Your task to perform on an android device: turn vacation reply on in the gmail app Image 0: 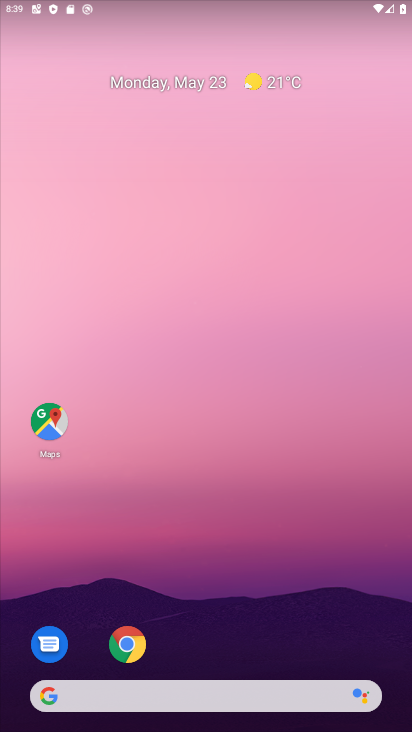
Step 0: drag from (190, 701) to (212, 17)
Your task to perform on an android device: turn vacation reply on in the gmail app Image 1: 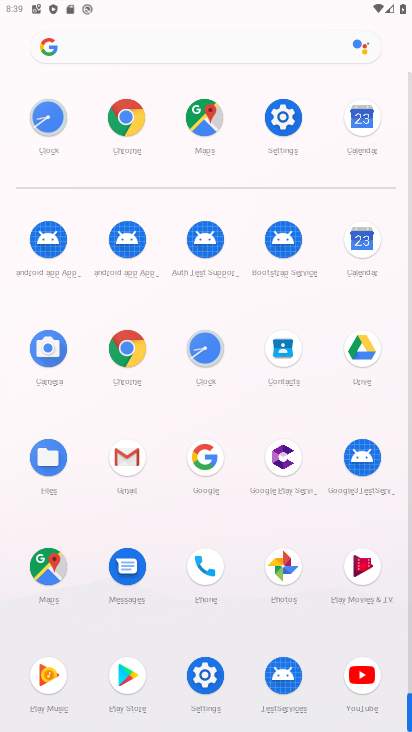
Step 1: click (141, 459)
Your task to perform on an android device: turn vacation reply on in the gmail app Image 2: 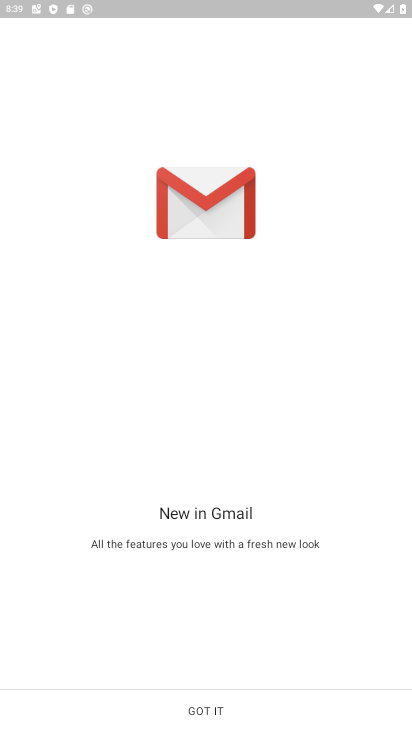
Step 2: click (217, 713)
Your task to perform on an android device: turn vacation reply on in the gmail app Image 3: 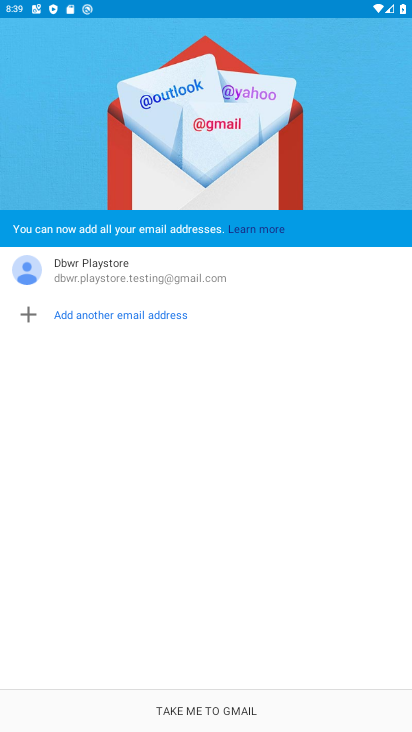
Step 3: click (217, 713)
Your task to perform on an android device: turn vacation reply on in the gmail app Image 4: 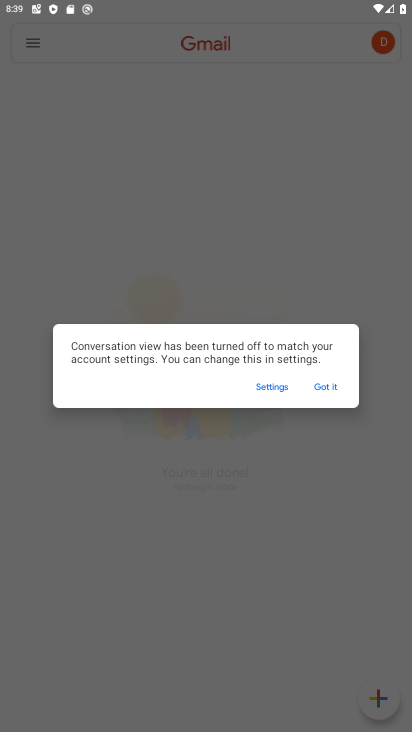
Step 4: click (320, 384)
Your task to perform on an android device: turn vacation reply on in the gmail app Image 5: 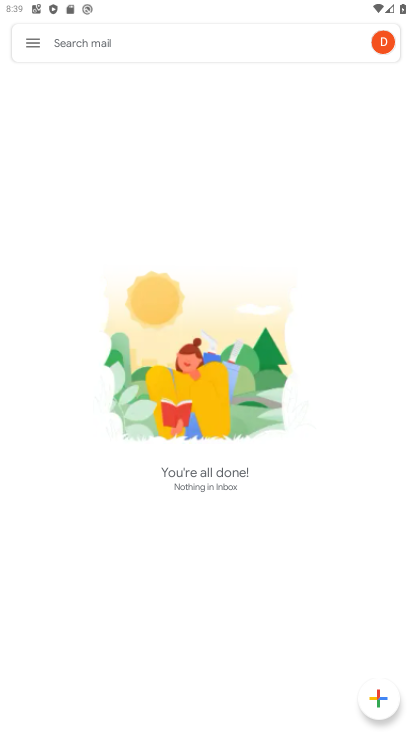
Step 5: click (25, 41)
Your task to perform on an android device: turn vacation reply on in the gmail app Image 6: 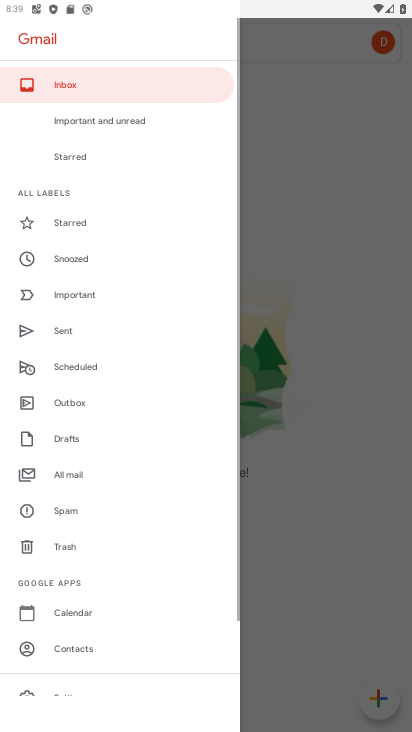
Step 6: drag from (82, 563) to (155, 68)
Your task to perform on an android device: turn vacation reply on in the gmail app Image 7: 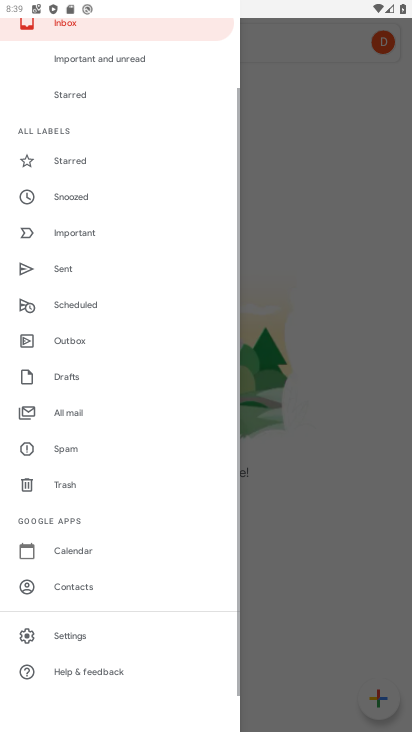
Step 7: click (75, 634)
Your task to perform on an android device: turn vacation reply on in the gmail app Image 8: 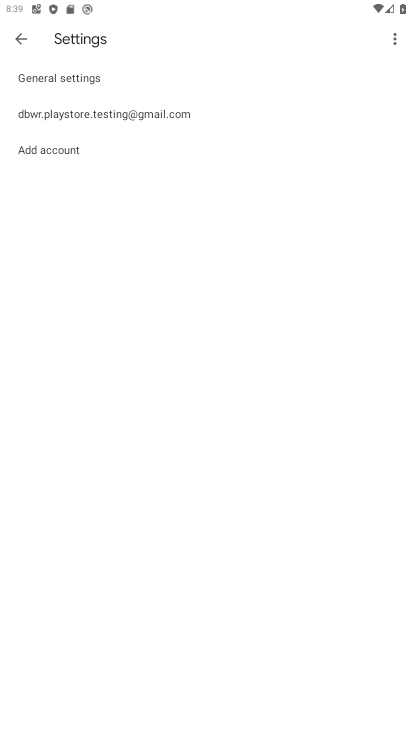
Step 8: click (127, 115)
Your task to perform on an android device: turn vacation reply on in the gmail app Image 9: 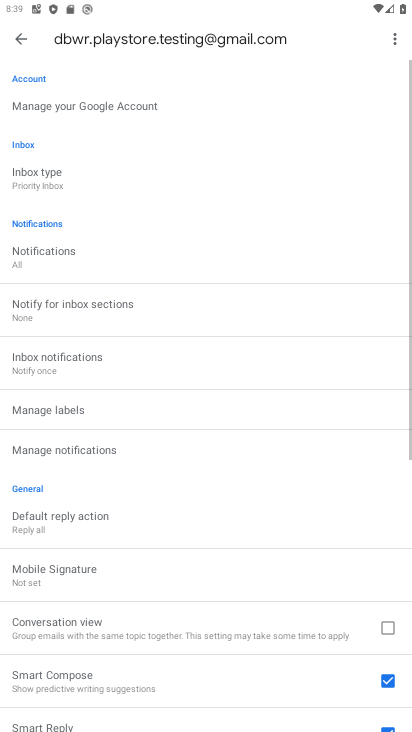
Step 9: drag from (258, 659) to (224, 61)
Your task to perform on an android device: turn vacation reply on in the gmail app Image 10: 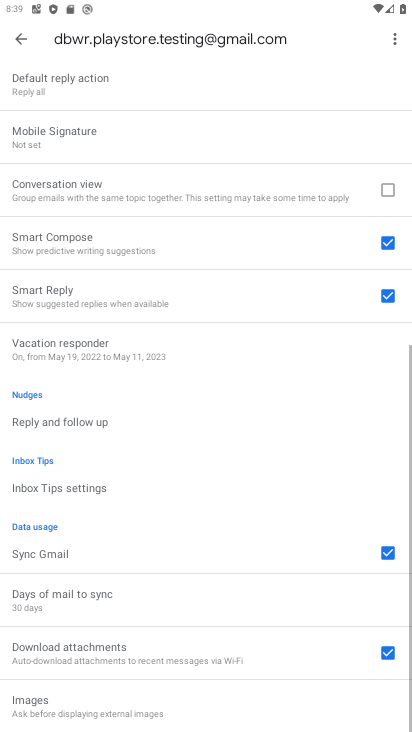
Step 10: click (105, 350)
Your task to perform on an android device: turn vacation reply on in the gmail app Image 11: 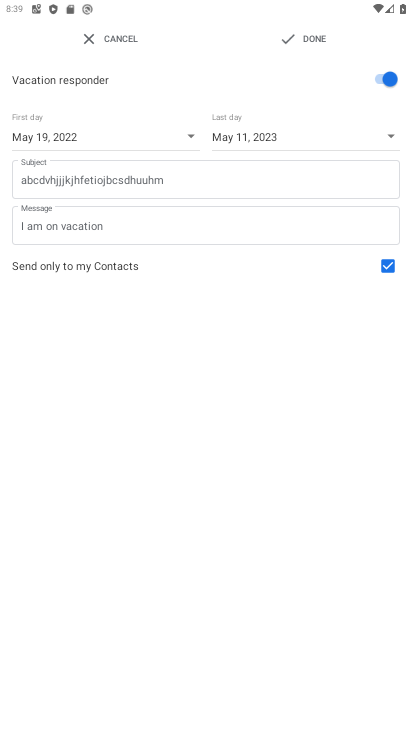
Step 11: click (316, 24)
Your task to perform on an android device: turn vacation reply on in the gmail app Image 12: 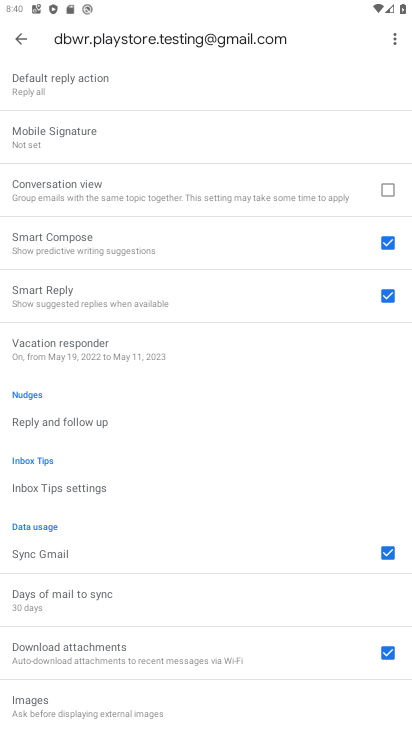
Step 12: task complete